Your task to perform on an android device: Go to display settings Image 0: 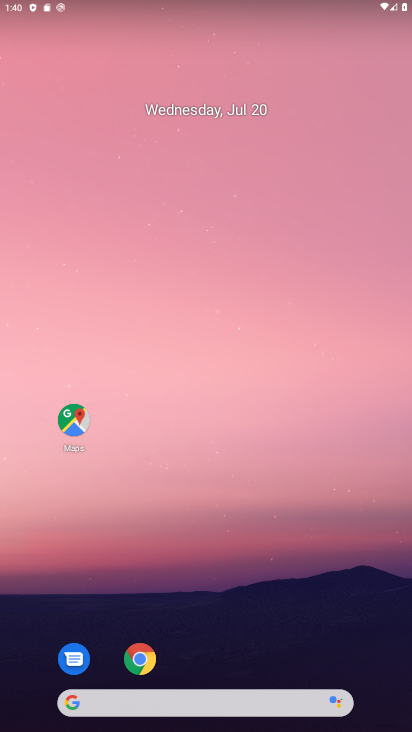
Step 0: drag from (28, 690) to (139, 244)
Your task to perform on an android device: Go to display settings Image 1: 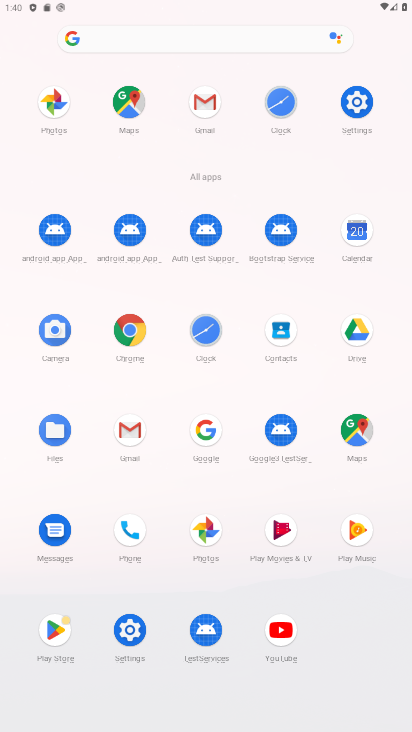
Step 1: click (130, 640)
Your task to perform on an android device: Go to display settings Image 2: 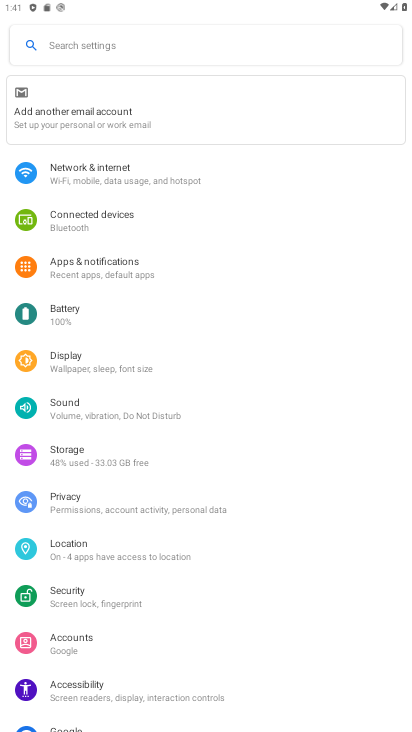
Step 2: click (86, 361)
Your task to perform on an android device: Go to display settings Image 3: 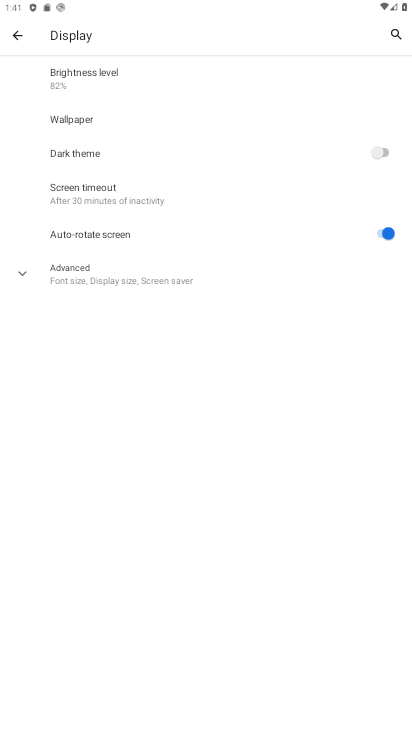
Step 3: task complete